Your task to perform on an android device: Go to battery settings Image 0: 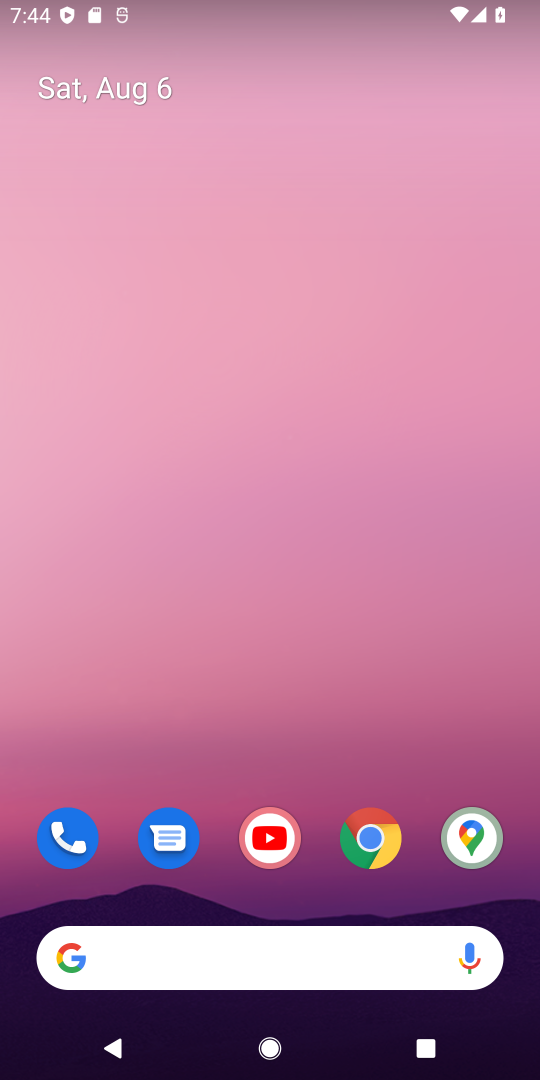
Step 0: drag from (264, 697) to (225, 123)
Your task to perform on an android device: Go to battery settings Image 1: 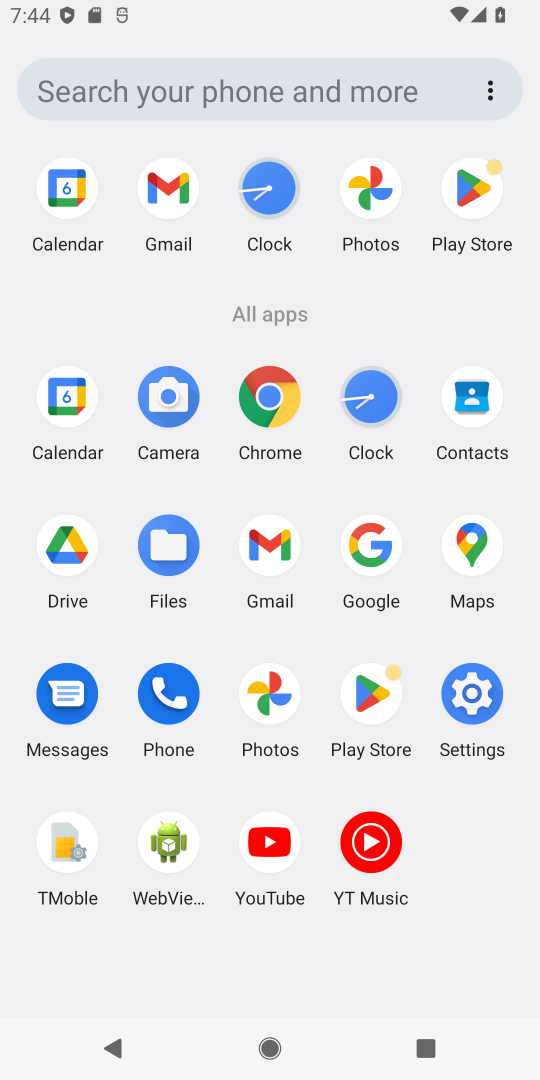
Step 1: click (459, 707)
Your task to perform on an android device: Go to battery settings Image 2: 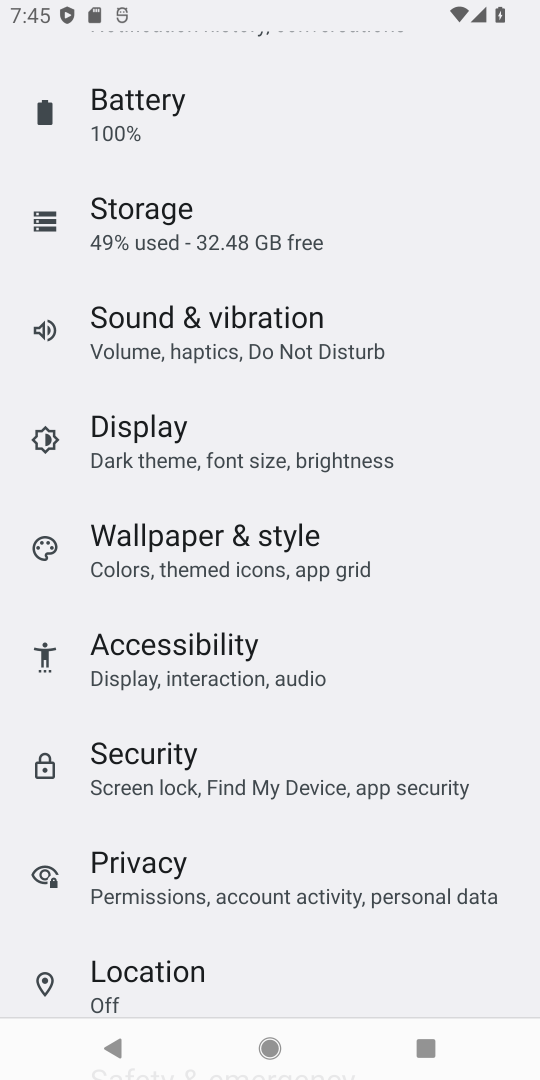
Step 2: click (109, 126)
Your task to perform on an android device: Go to battery settings Image 3: 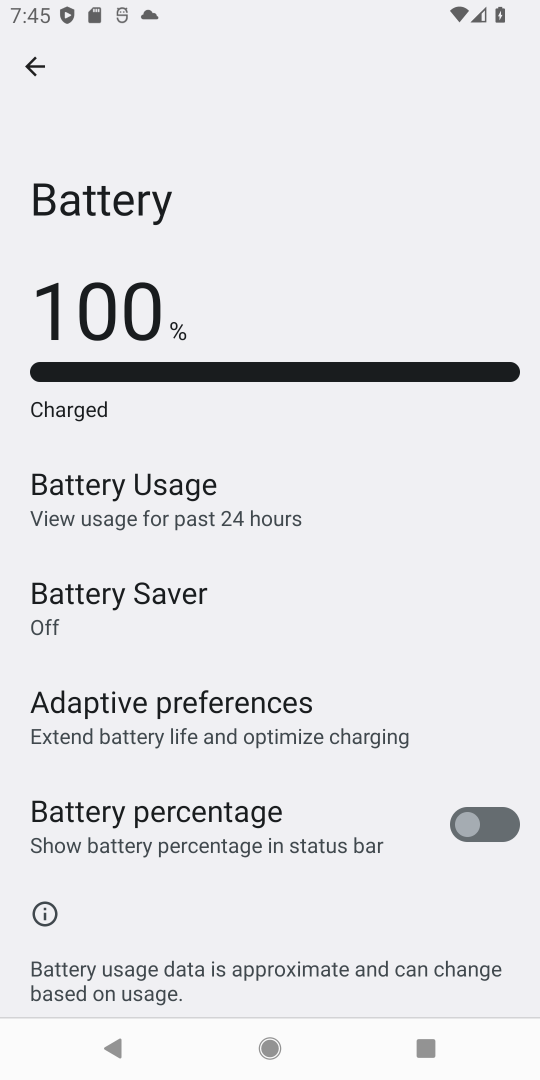
Step 3: task complete